Your task to perform on an android device: Open Youtube and go to the subscriptions tab Image 0: 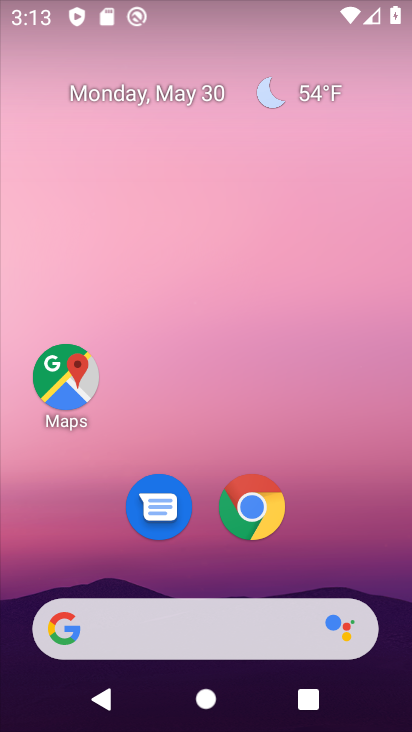
Step 0: click (270, 522)
Your task to perform on an android device: Open Youtube and go to the subscriptions tab Image 1: 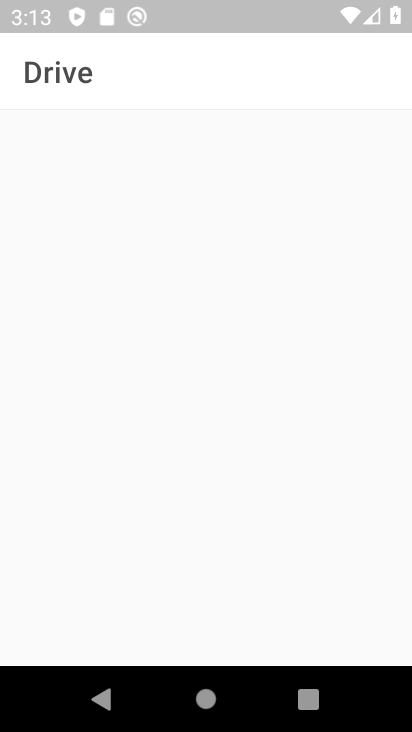
Step 1: click (270, 521)
Your task to perform on an android device: Open Youtube and go to the subscriptions tab Image 2: 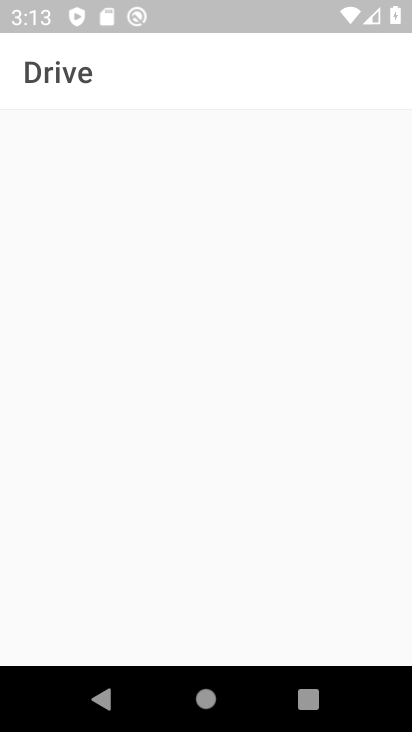
Step 2: press home button
Your task to perform on an android device: Open Youtube and go to the subscriptions tab Image 3: 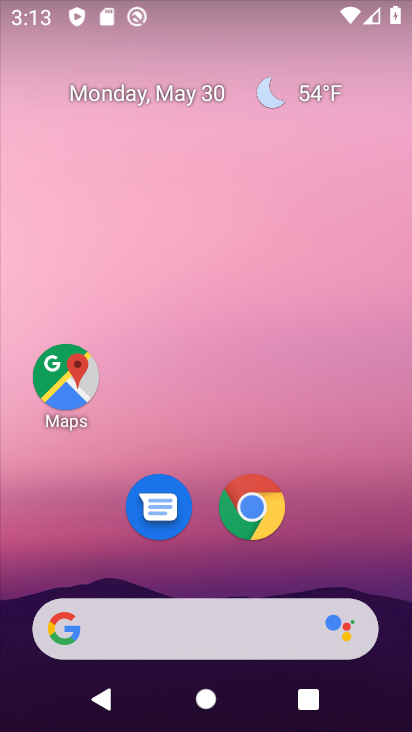
Step 3: drag from (138, 592) to (213, 96)
Your task to perform on an android device: Open Youtube and go to the subscriptions tab Image 4: 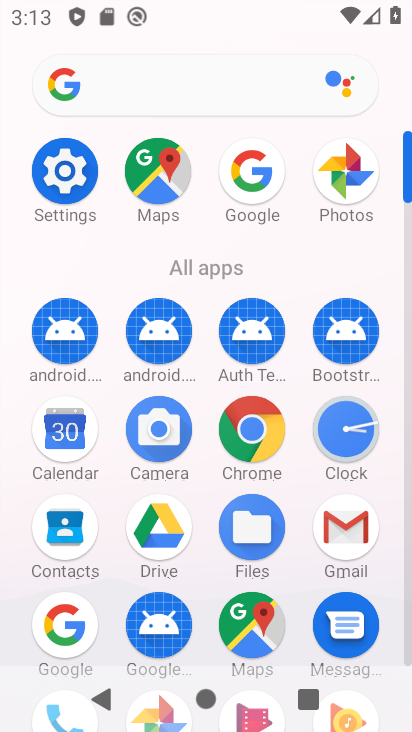
Step 4: drag from (122, 613) to (220, 278)
Your task to perform on an android device: Open Youtube and go to the subscriptions tab Image 5: 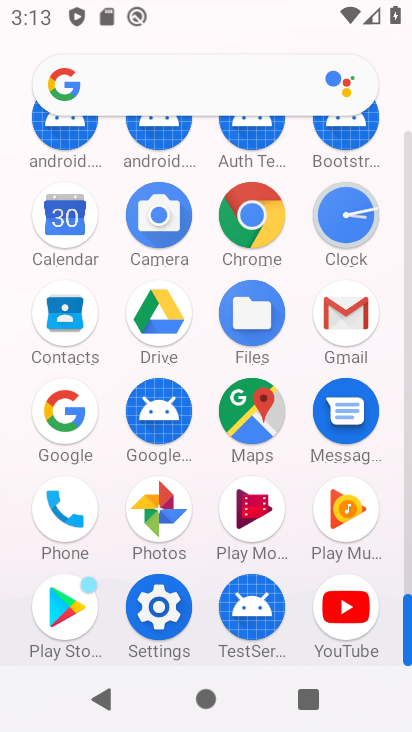
Step 5: click (352, 597)
Your task to perform on an android device: Open Youtube and go to the subscriptions tab Image 6: 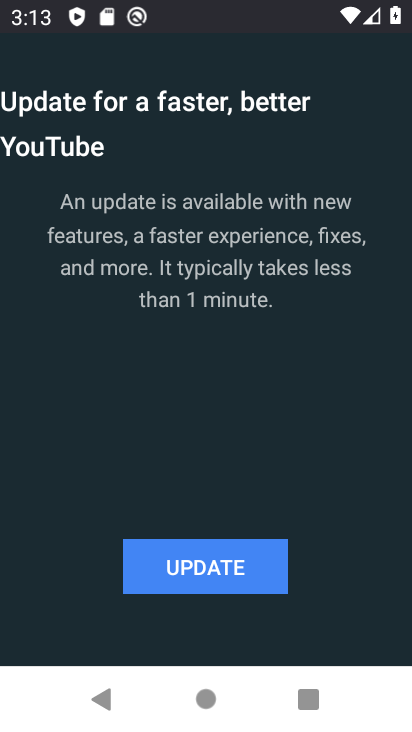
Step 6: click (221, 587)
Your task to perform on an android device: Open Youtube and go to the subscriptions tab Image 7: 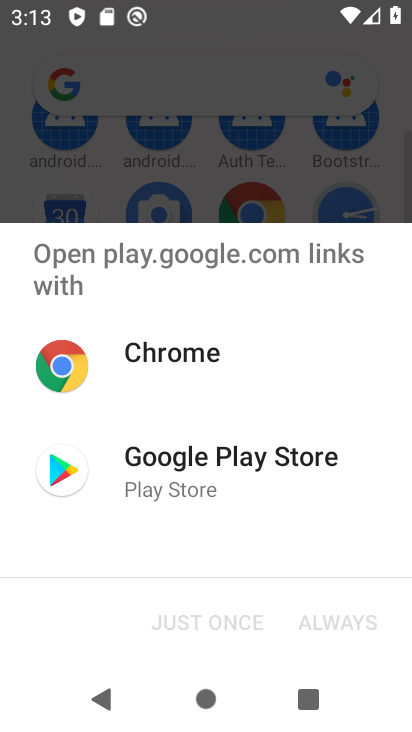
Step 7: click (265, 494)
Your task to perform on an android device: Open Youtube and go to the subscriptions tab Image 8: 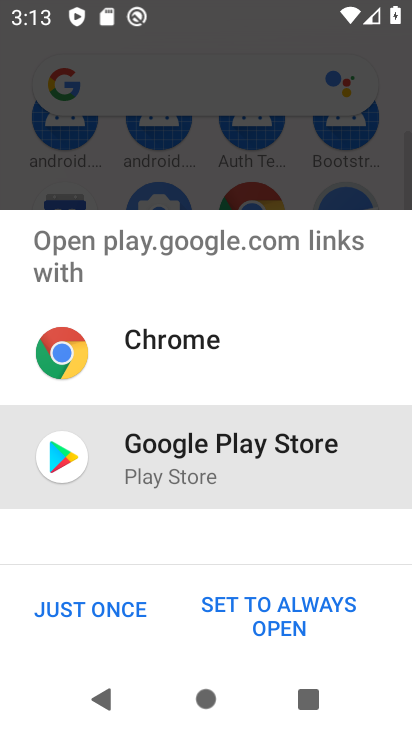
Step 8: click (119, 610)
Your task to perform on an android device: Open Youtube and go to the subscriptions tab Image 9: 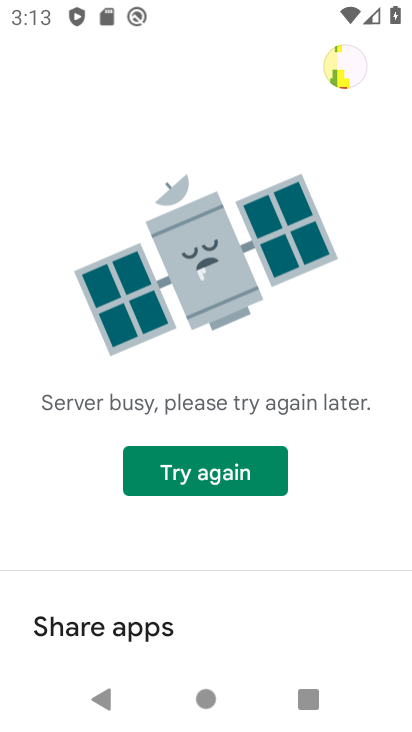
Step 9: click (249, 493)
Your task to perform on an android device: Open Youtube and go to the subscriptions tab Image 10: 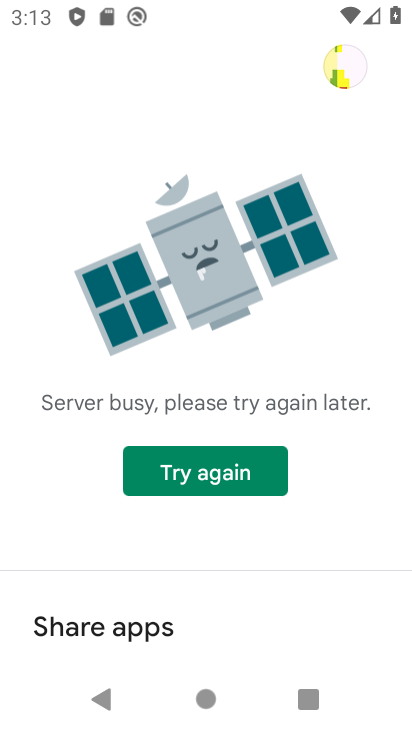
Step 10: click (248, 497)
Your task to perform on an android device: Open Youtube and go to the subscriptions tab Image 11: 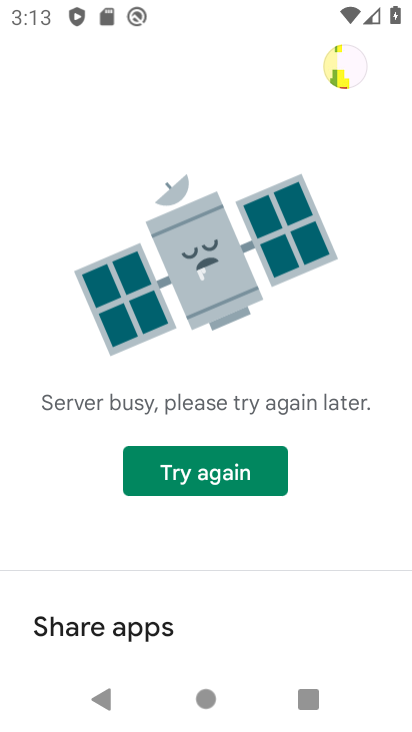
Step 11: task complete